Your task to perform on an android device: What is the recent news? Image 0: 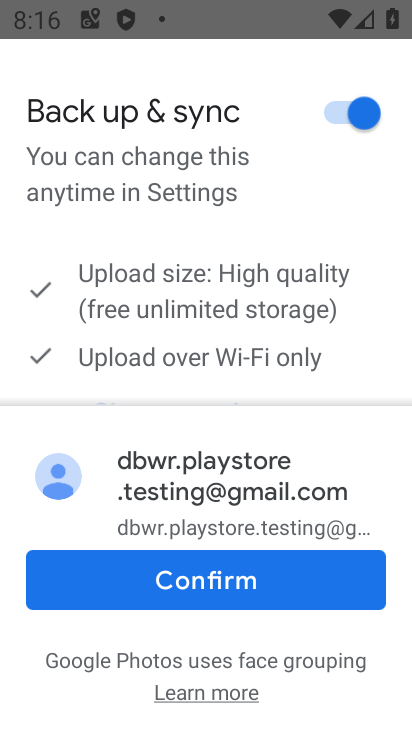
Step 0: press back button
Your task to perform on an android device: What is the recent news? Image 1: 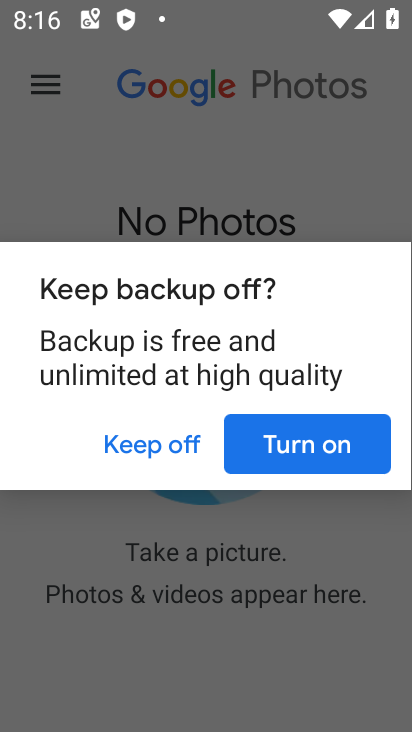
Step 1: press home button
Your task to perform on an android device: What is the recent news? Image 2: 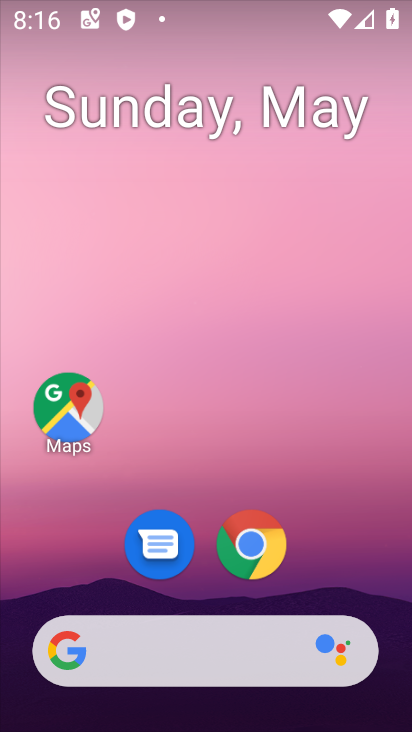
Step 2: drag from (316, 482) to (233, 37)
Your task to perform on an android device: What is the recent news? Image 3: 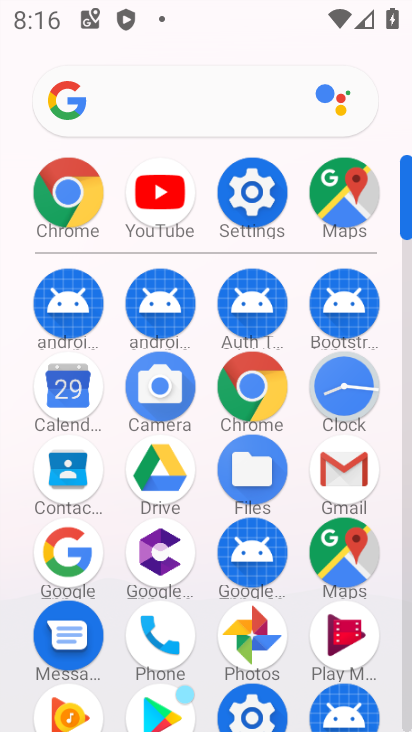
Step 3: drag from (18, 511) to (18, 240)
Your task to perform on an android device: What is the recent news? Image 4: 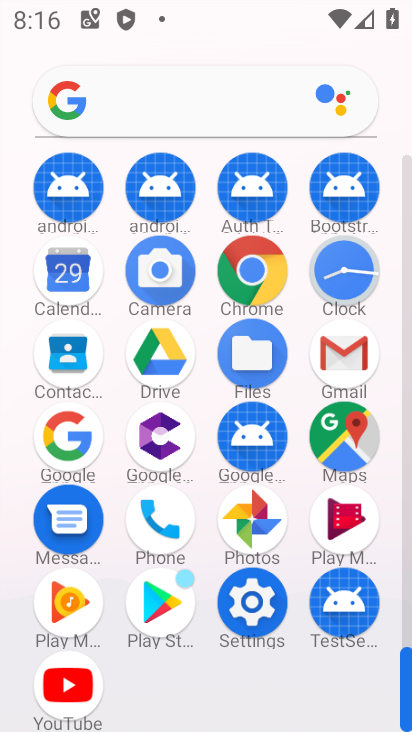
Step 4: click (257, 270)
Your task to perform on an android device: What is the recent news? Image 5: 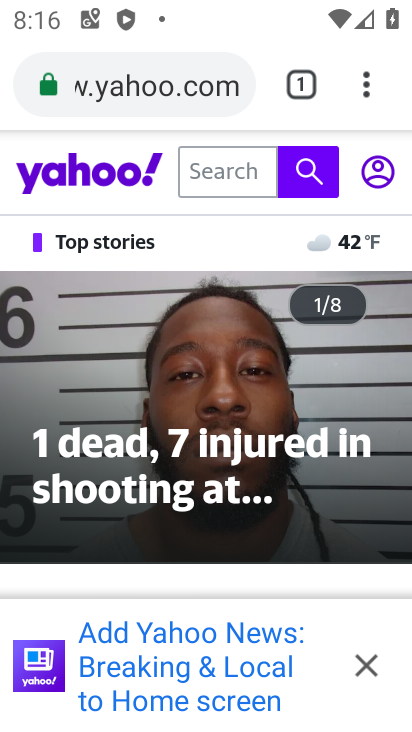
Step 5: click (149, 71)
Your task to perform on an android device: What is the recent news? Image 6: 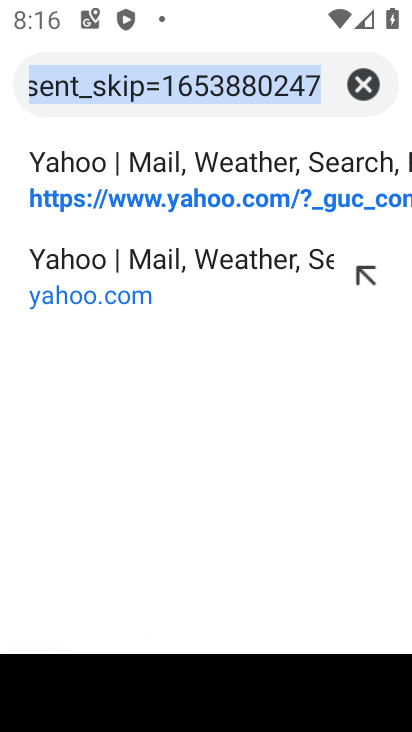
Step 6: click (352, 73)
Your task to perform on an android device: What is the recent news? Image 7: 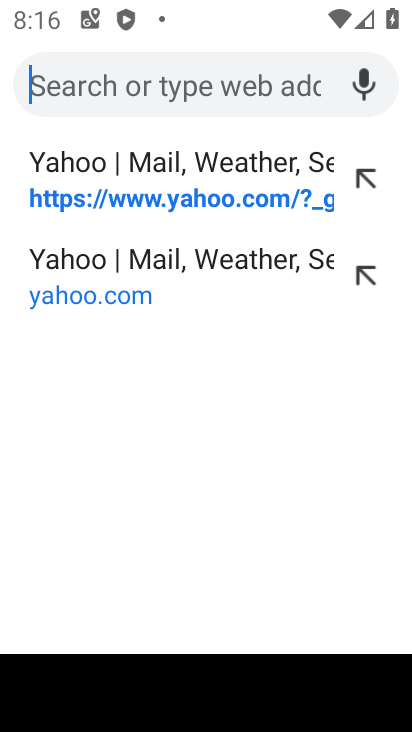
Step 7: type "What is the recent news?"
Your task to perform on an android device: What is the recent news? Image 8: 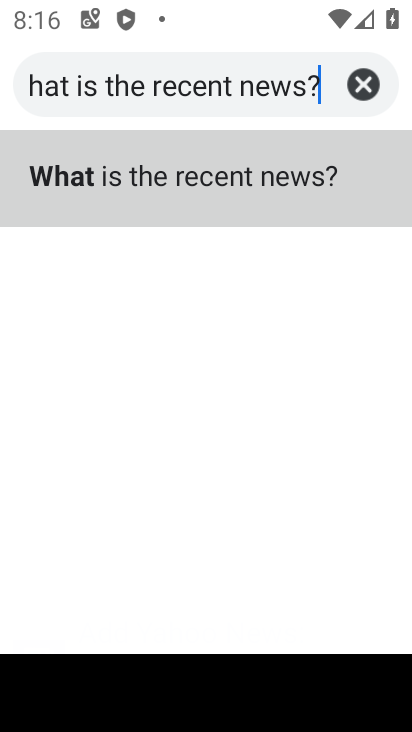
Step 8: type ""
Your task to perform on an android device: What is the recent news? Image 9: 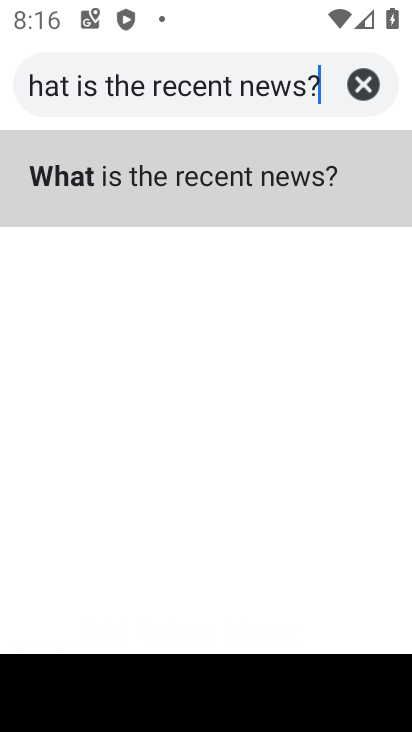
Step 9: click (142, 154)
Your task to perform on an android device: What is the recent news? Image 10: 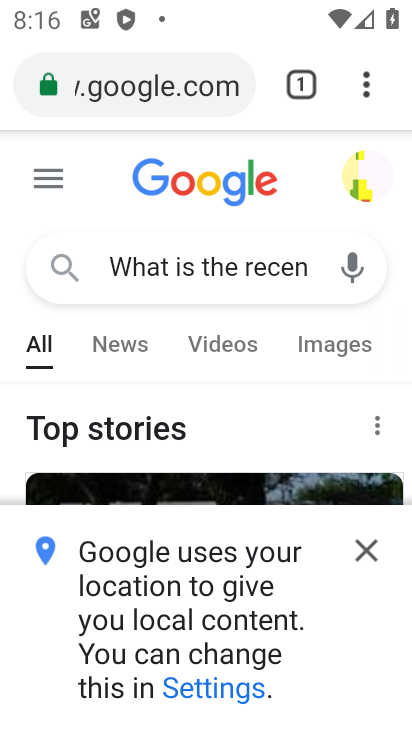
Step 10: click (365, 548)
Your task to perform on an android device: What is the recent news? Image 11: 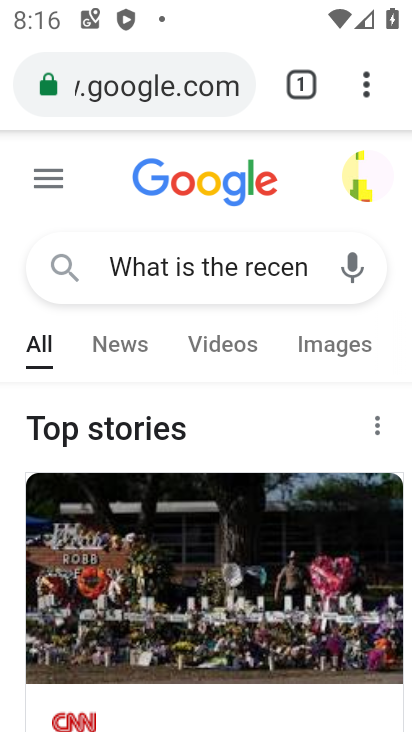
Step 11: task complete